Your task to perform on an android device: toggle show notifications on the lock screen Image 0: 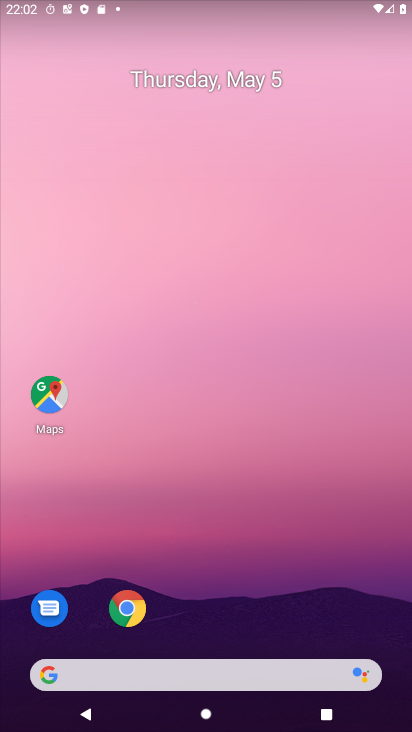
Step 0: drag from (351, 605) to (318, 35)
Your task to perform on an android device: toggle show notifications on the lock screen Image 1: 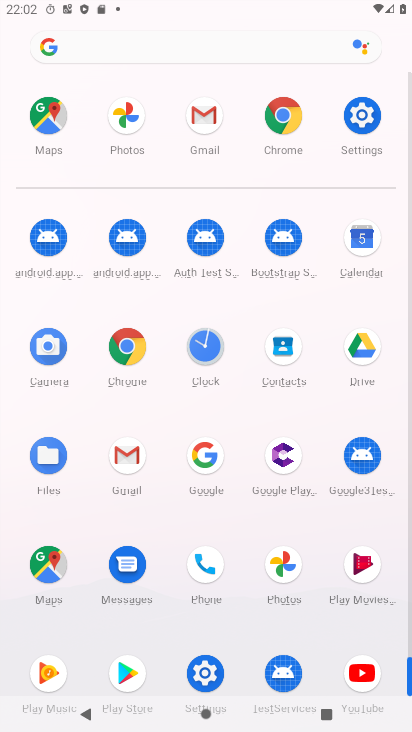
Step 1: click (365, 117)
Your task to perform on an android device: toggle show notifications on the lock screen Image 2: 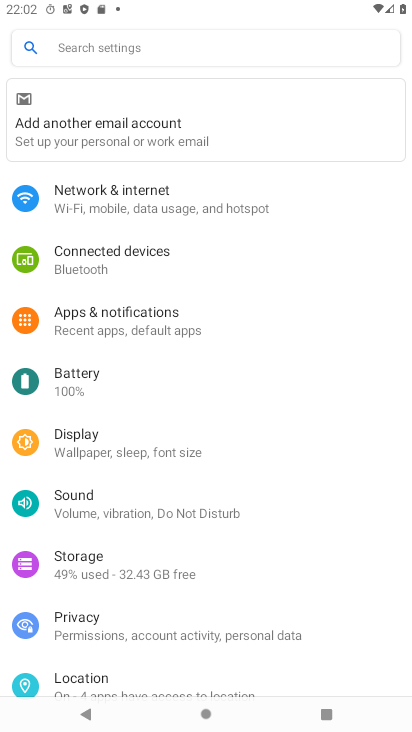
Step 2: click (136, 320)
Your task to perform on an android device: toggle show notifications on the lock screen Image 3: 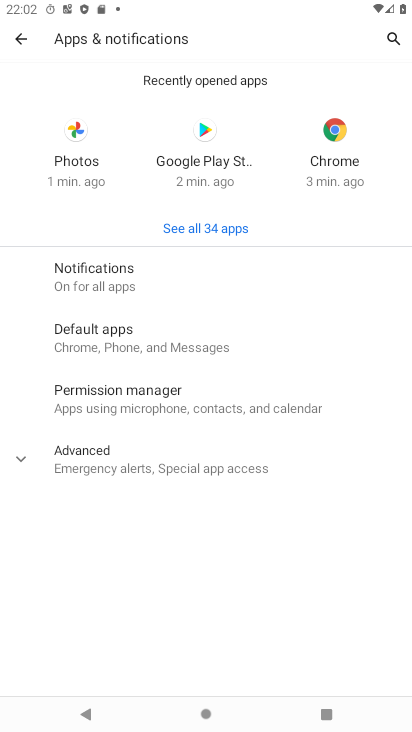
Step 3: click (137, 273)
Your task to perform on an android device: toggle show notifications on the lock screen Image 4: 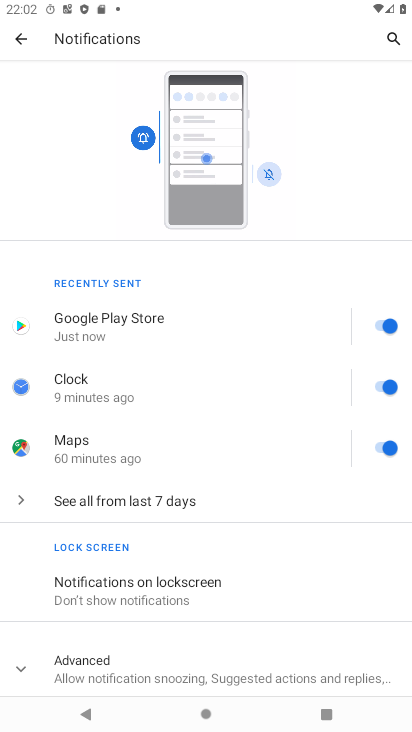
Step 4: click (163, 589)
Your task to perform on an android device: toggle show notifications on the lock screen Image 5: 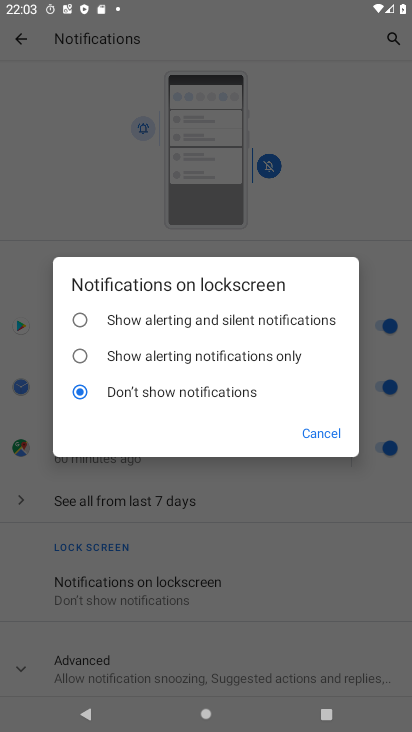
Step 5: click (73, 318)
Your task to perform on an android device: toggle show notifications on the lock screen Image 6: 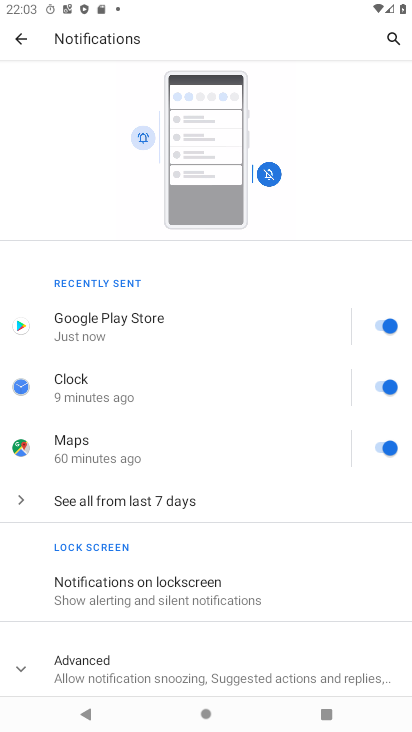
Step 6: task complete